Your task to perform on an android device: set an alarm Image 0: 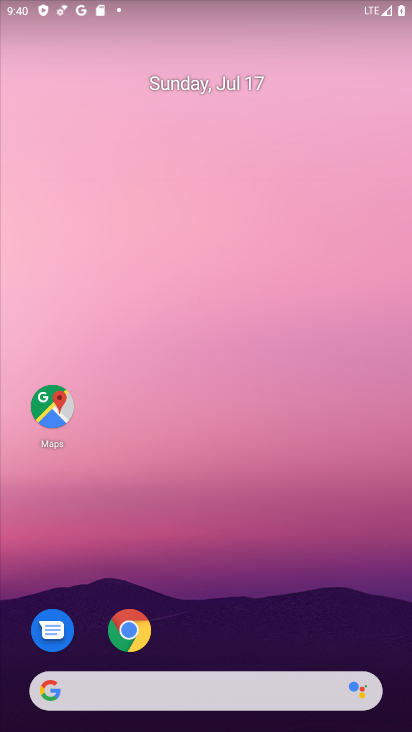
Step 0: drag from (228, 641) to (313, 206)
Your task to perform on an android device: set an alarm Image 1: 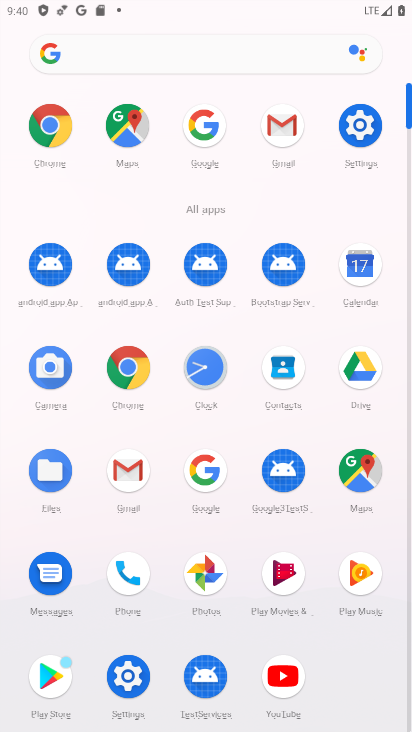
Step 1: click (203, 356)
Your task to perform on an android device: set an alarm Image 2: 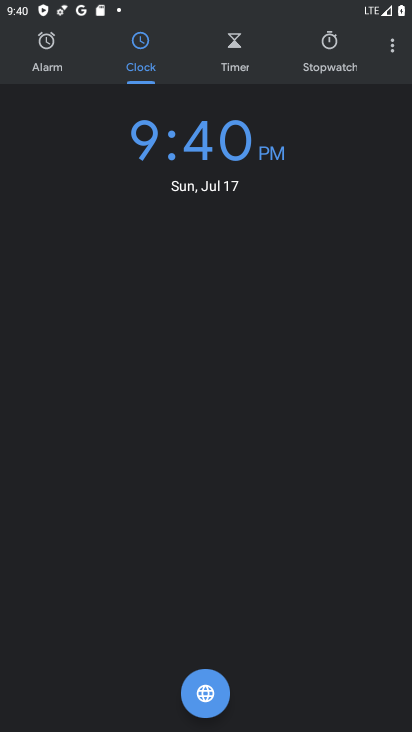
Step 2: click (50, 56)
Your task to perform on an android device: set an alarm Image 3: 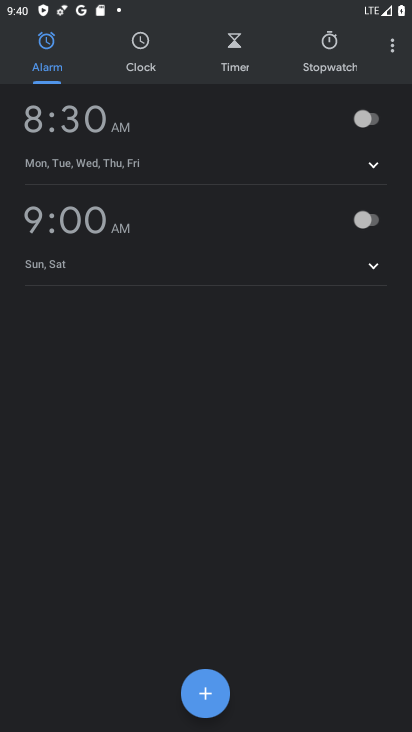
Step 3: click (368, 125)
Your task to perform on an android device: set an alarm Image 4: 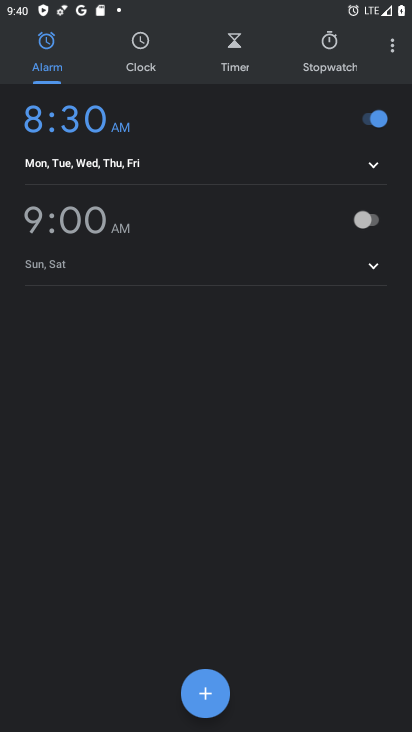
Step 4: task complete